Your task to perform on an android device: What's on my calendar tomorrow? Image 0: 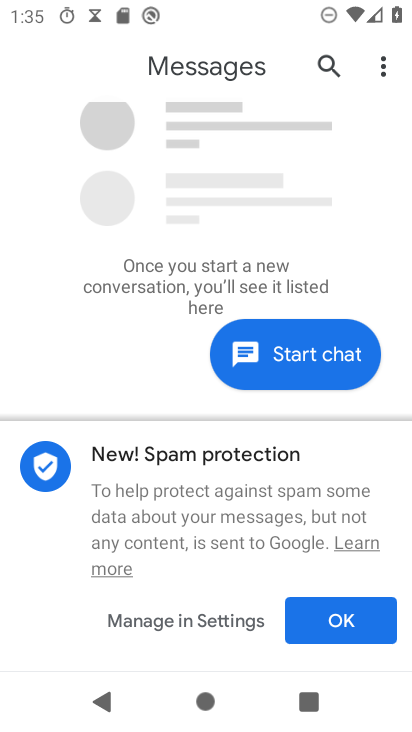
Step 0: press home button
Your task to perform on an android device: What's on my calendar tomorrow? Image 1: 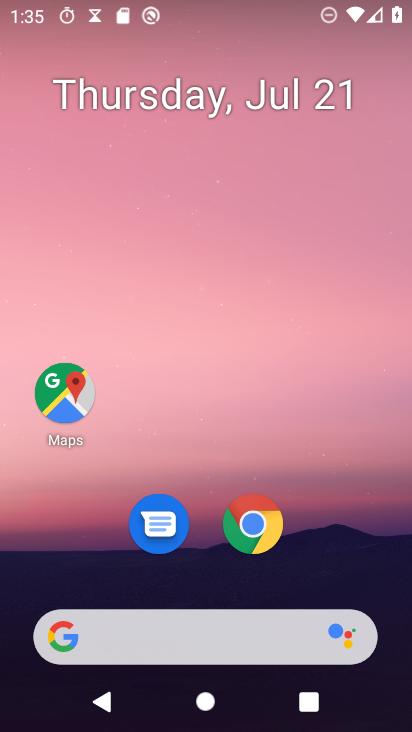
Step 1: drag from (165, 636) to (215, 134)
Your task to perform on an android device: What's on my calendar tomorrow? Image 2: 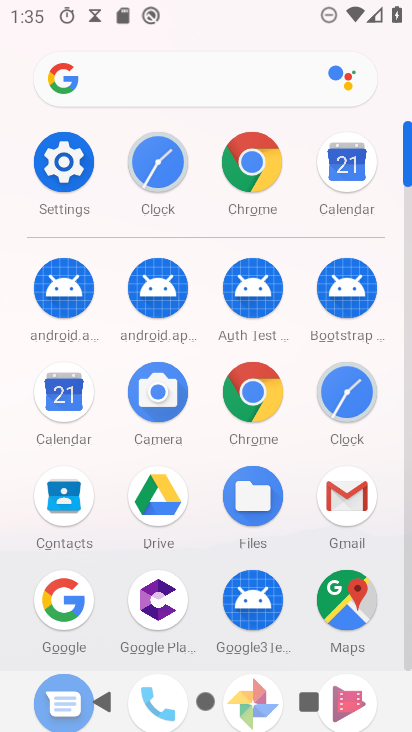
Step 2: click (72, 401)
Your task to perform on an android device: What's on my calendar tomorrow? Image 3: 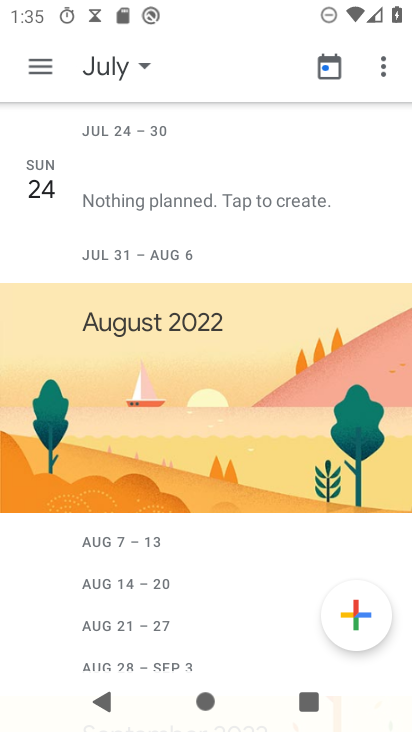
Step 3: task complete